Your task to perform on an android device: turn notification dots off Image 0: 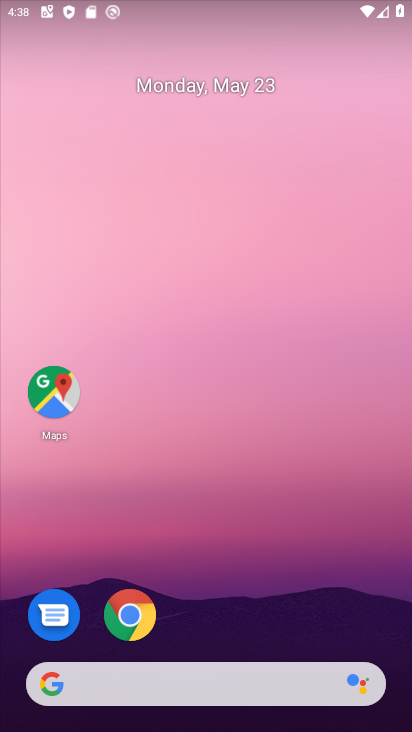
Step 0: drag from (225, 582) to (295, 31)
Your task to perform on an android device: turn notification dots off Image 1: 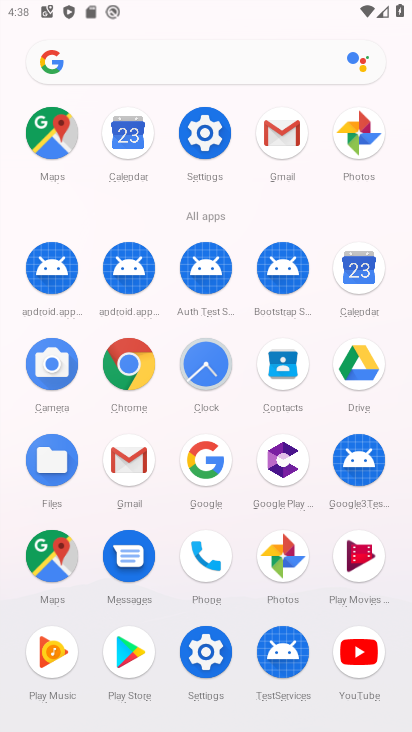
Step 1: click (210, 136)
Your task to perform on an android device: turn notification dots off Image 2: 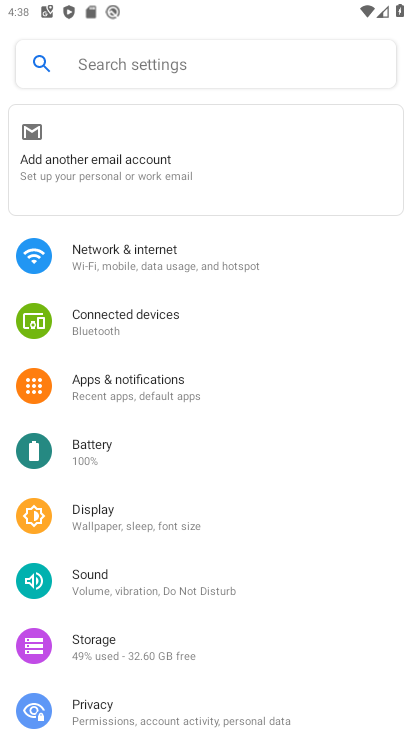
Step 2: click (119, 391)
Your task to perform on an android device: turn notification dots off Image 3: 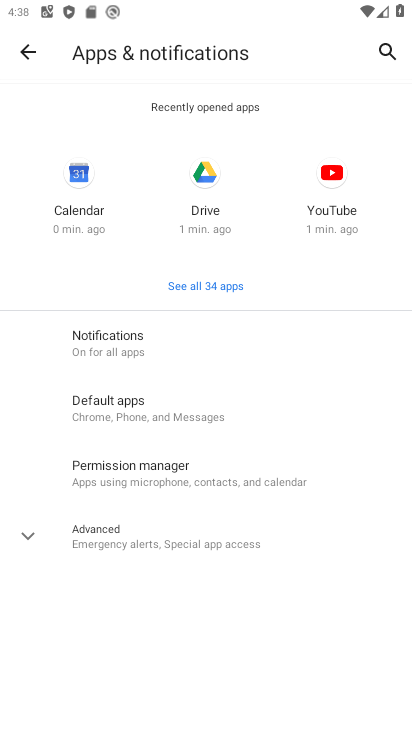
Step 3: click (107, 338)
Your task to perform on an android device: turn notification dots off Image 4: 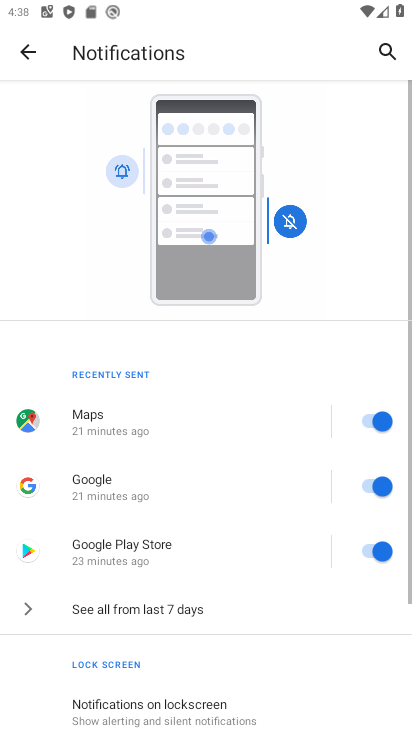
Step 4: drag from (135, 668) to (255, 53)
Your task to perform on an android device: turn notification dots off Image 5: 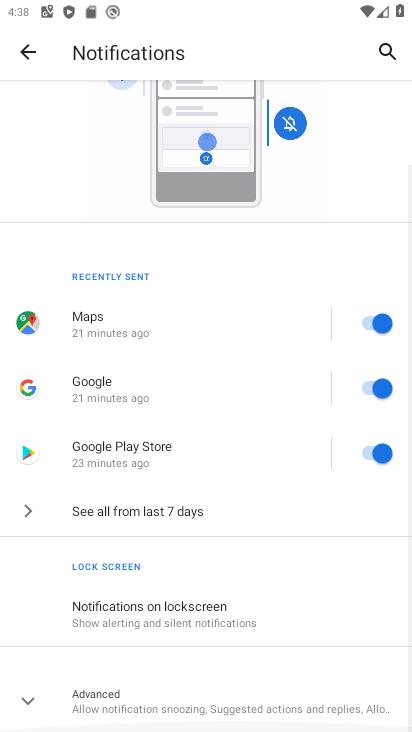
Step 5: click (59, 703)
Your task to perform on an android device: turn notification dots off Image 6: 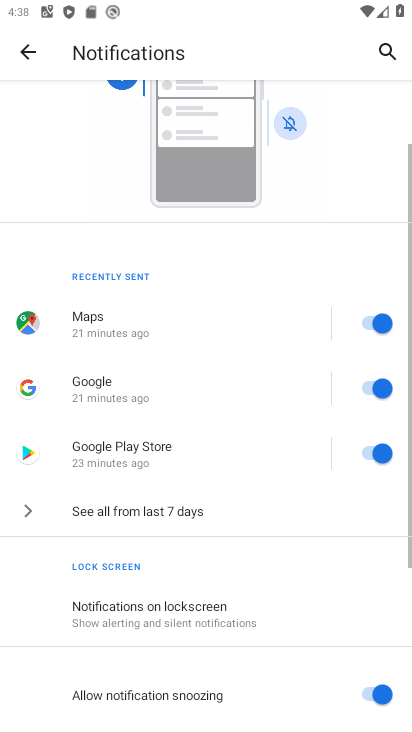
Step 6: task complete